Your task to perform on an android device: toggle show notifications on the lock screen Image 0: 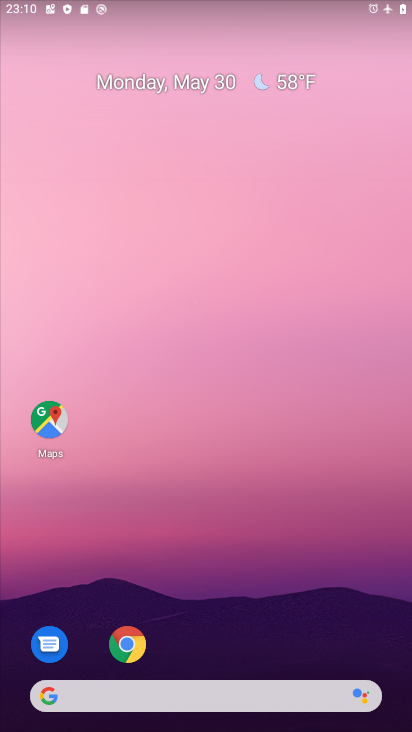
Step 0: drag from (383, 647) to (335, 23)
Your task to perform on an android device: toggle show notifications on the lock screen Image 1: 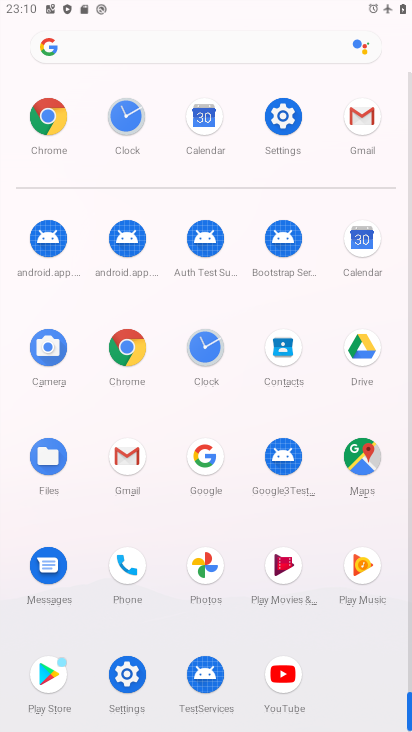
Step 1: click (127, 676)
Your task to perform on an android device: toggle show notifications on the lock screen Image 2: 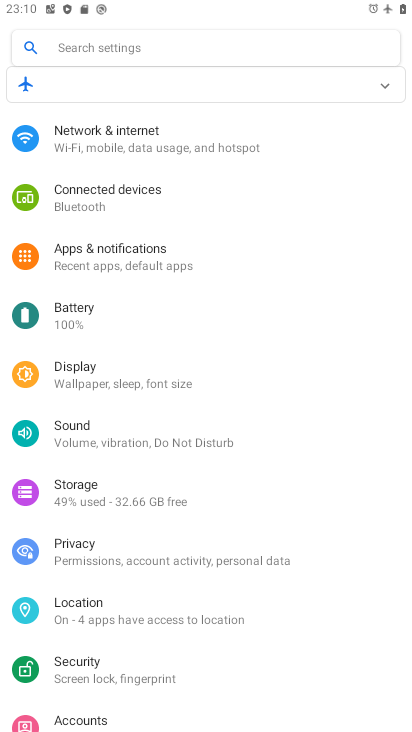
Step 2: click (98, 251)
Your task to perform on an android device: toggle show notifications on the lock screen Image 3: 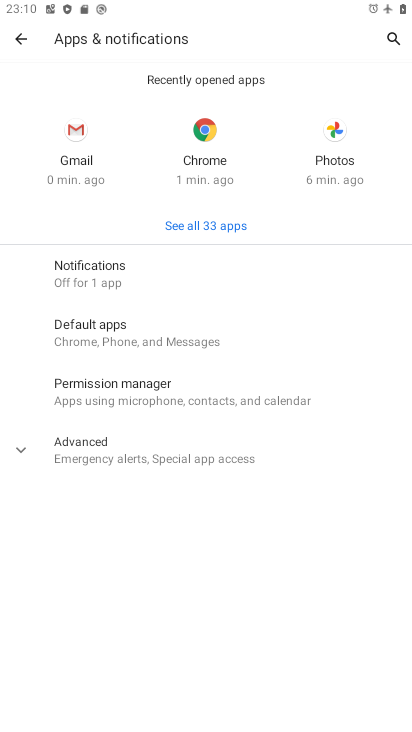
Step 3: click (97, 280)
Your task to perform on an android device: toggle show notifications on the lock screen Image 4: 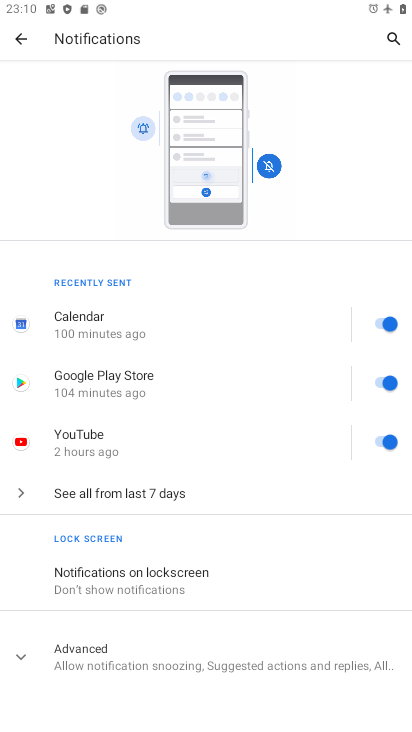
Step 4: click (155, 588)
Your task to perform on an android device: toggle show notifications on the lock screen Image 5: 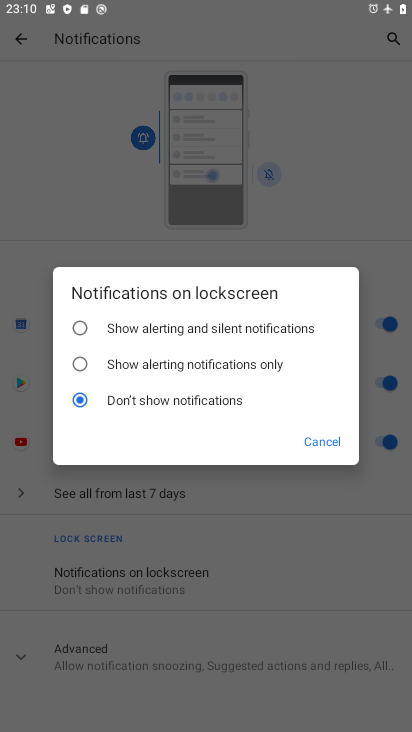
Step 5: click (80, 322)
Your task to perform on an android device: toggle show notifications on the lock screen Image 6: 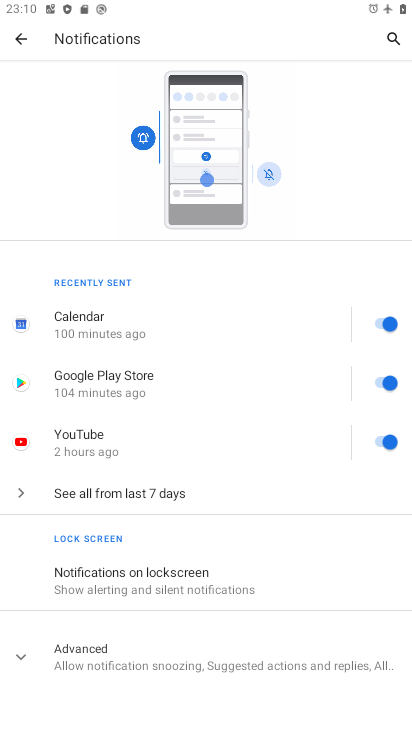
Step 6: task complete